Your task to perform on an android device: refresh tabs in the chrome app Image 0: 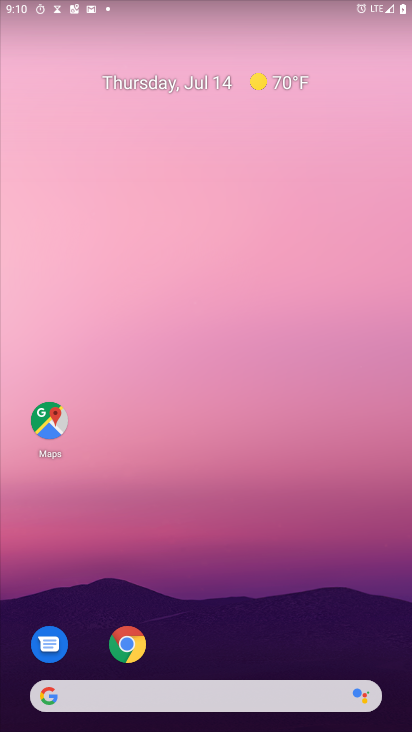
Step 0: click (135, 644)
Your task to perform on an android device: refresh tabs in the chrome app Image 1: 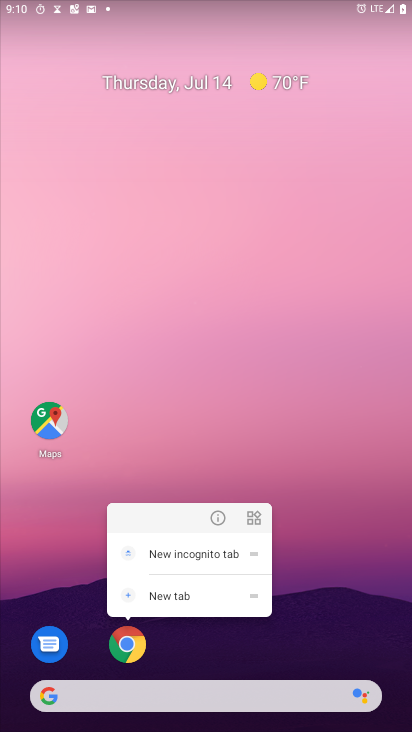
Step 1: click (129, 649)
Your task to perform on an android device: refresh tabs in the chrome app Image 2: 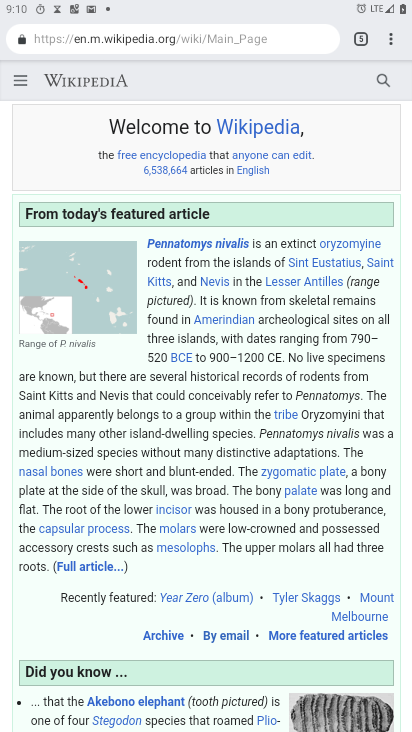
Step 2: click (390, 44)
Your task to perform on an android device: refresh tabs in the chrome app Image 3: 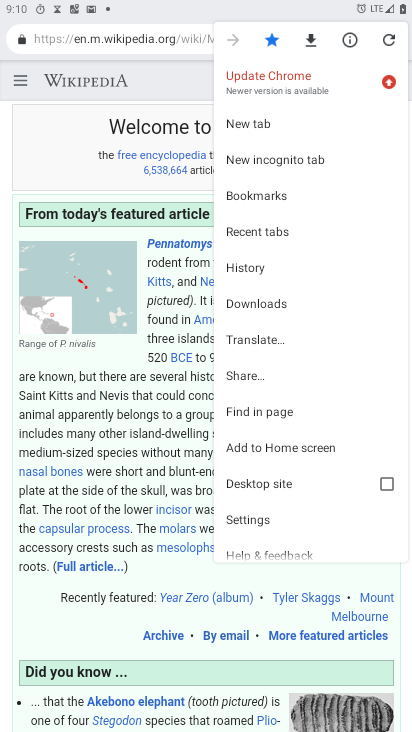
Step 3: click (388, 35)
Your task to perform on an android device: refresh tabs in the chrome app Image 4: 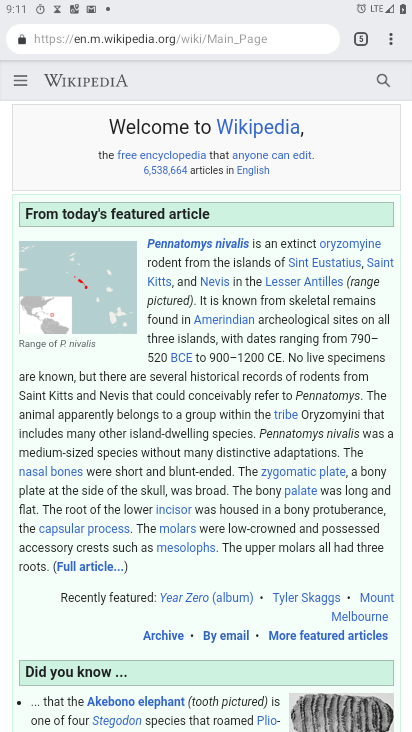
Step 4: task complete